Your task to perform on an android device: uninstall "Nova Launcher" Image 0: 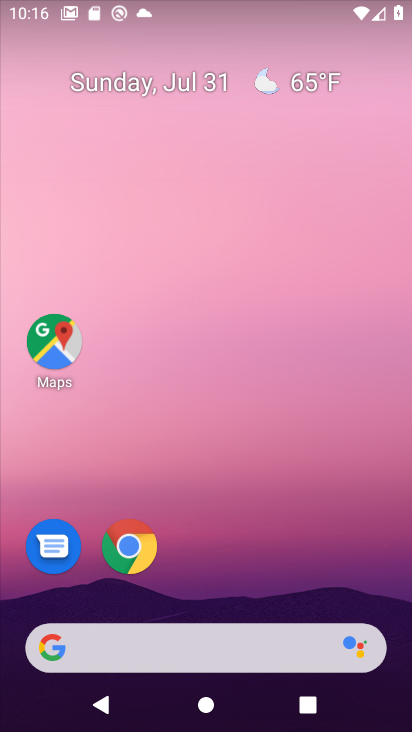
Step 0: drag from (237, 527) to (246, 98)
Your task to perform on an android device: uninstall "Nova Launcher" Image 1: 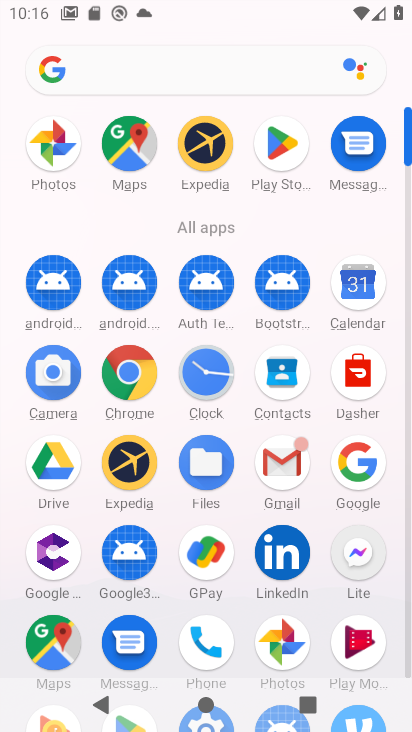
Step 1: click (268, 155)
Your task to perform on an android device: uninstall "Nova Launcher" Image 2: 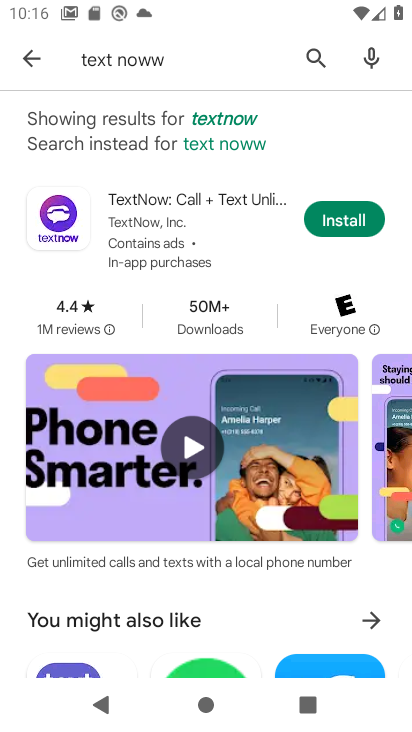
Step 2: click (322, 47)
Your task to perform on an android device: uninstall "Nova Launcher" Image 3: 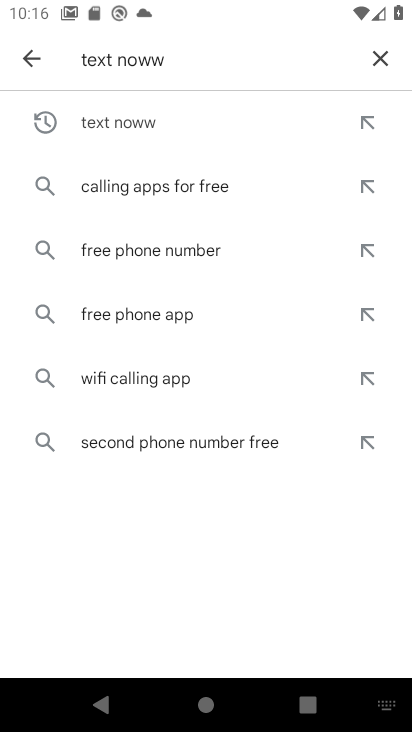
Step 3: click (377, 48)
Your task to perform on an android device: uninstall "Nova Launcher" Image 4: 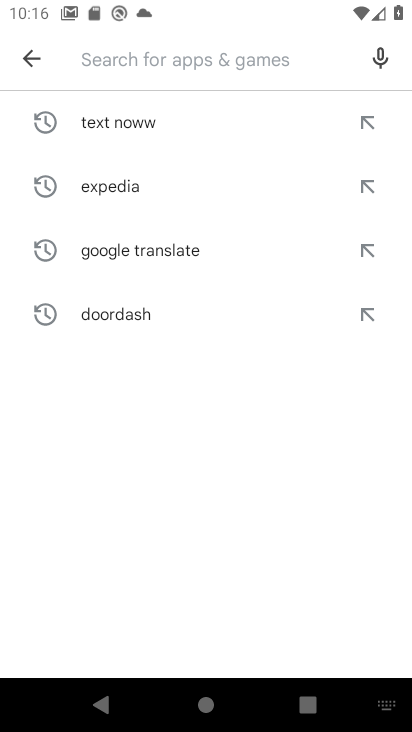
Step 4: click (145, 69)
Your task to perform on an android device: uninstall "Nova Launcher" Image 5: 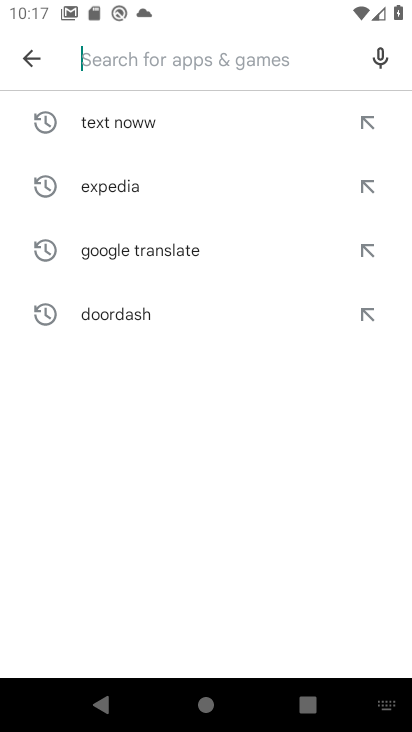
Step 5: type "nova launcher"
Your task to perform on an android device: uninstall "Nova Launcher" Image 6: 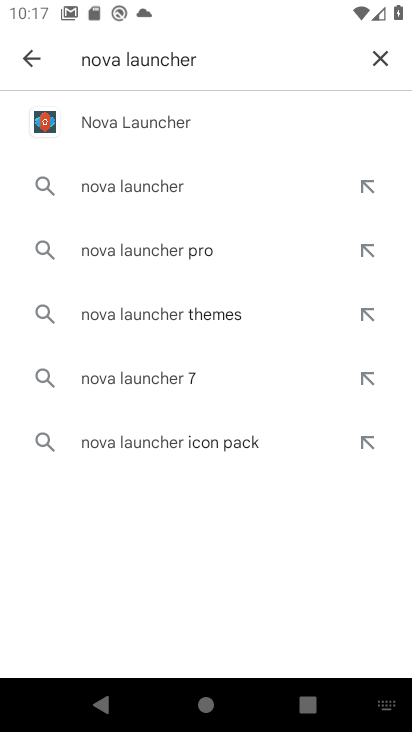
Step 6: click (184, 127)
Your task to perform on an android device: uninstall "Nova Launcher" Image 7: 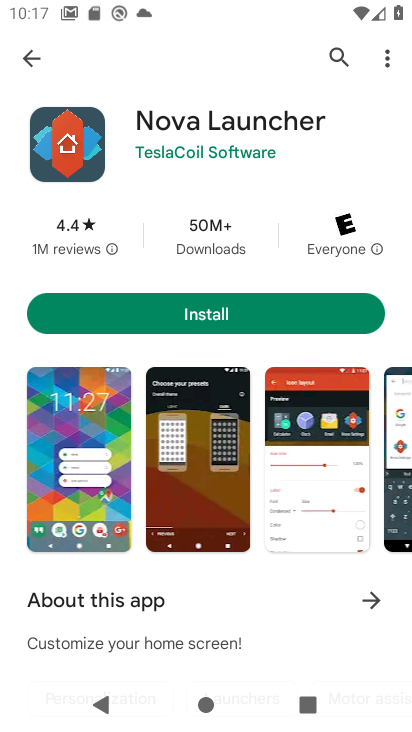
Step 7: task complete